Your task to perform on an android device: install app "Airtel Thanks" Image 0: 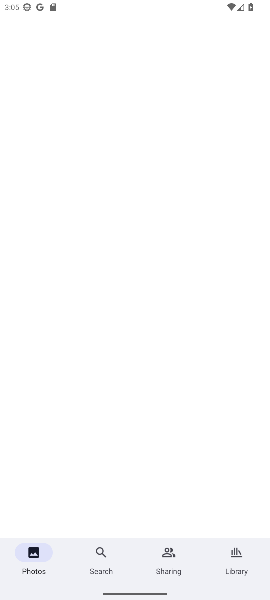
Step 0: press home button
Your task to perform on an android device: install app "Airtel Thanks" Image 1: 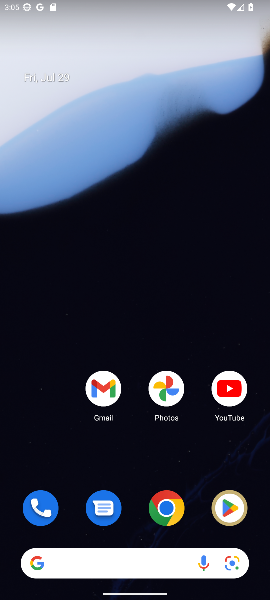
Step 1: drag from (188, 454) to (54, 5)
Your task to perform on an android device: install app "Airtel Thanks" Image 2: 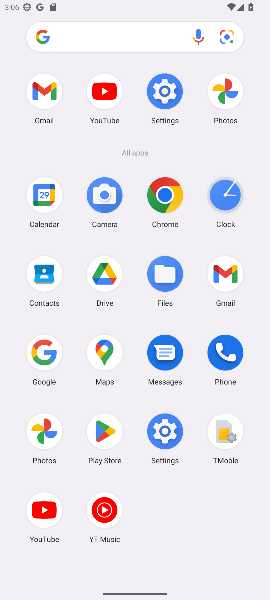
Step 2: click (97, 431)
Your task to perform on an android device: install app "Airtel Thanks" Image 3: 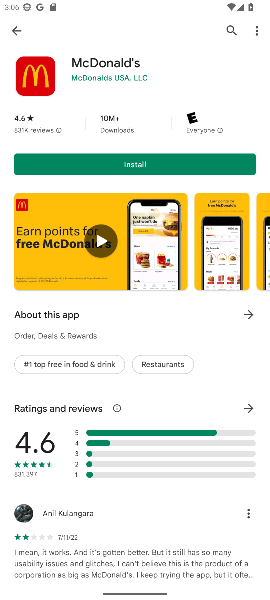
Step 3: press back button
Your task to perform on an android device: install app "Airtel Thanks" Image 4: 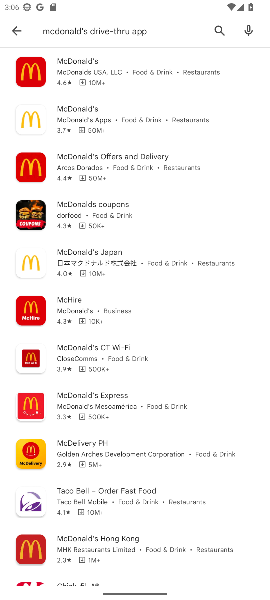
Step 4: press back button
Your task to perform on an android device: install app "Airtel Thanks" Image 5: 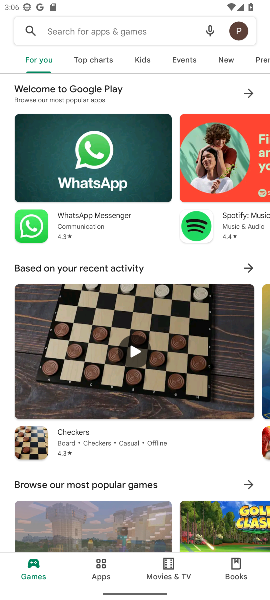
Step 5: click (107, 30)
Your task to perform on an android device: install app "Airtel Thanks" Image 6: 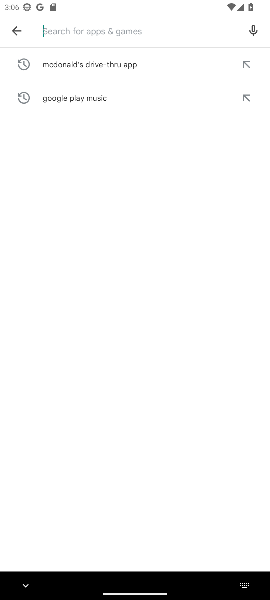
Step 6: type "Airtel Thanks"
Your task to perform on an android device: install app "Airtel Thanks" Image 7: 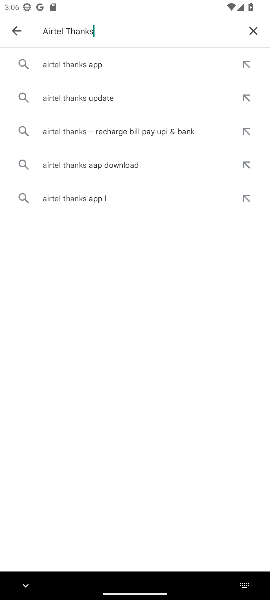
Step 7: click (75, 72)
Your task to perform on an android device: install app "Airtel Thanks" Image 8: 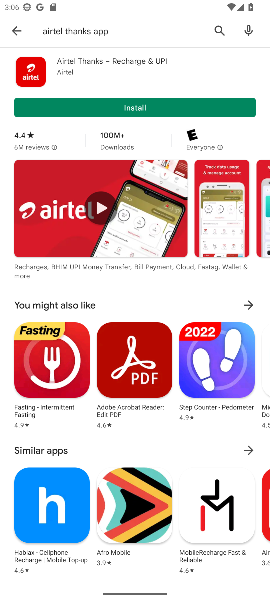
Step 8: click (91, 104)
Your task to perform on an android device: install app "Airtel Thanks" Image 9: 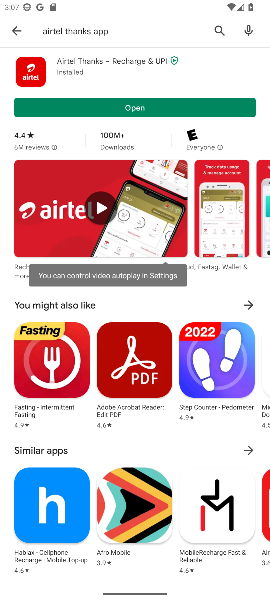
Step 9: task complete